Your task to perform on an android device: toggle javascript in the chrome app Image 0: 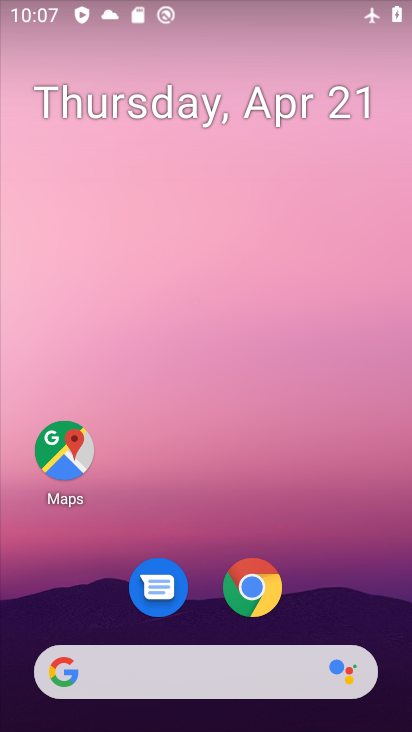
Step 0: drag from (338, 604) to (349, 136)
Your task to perform on an android device: toggle javascript in the chrome app Image 1: 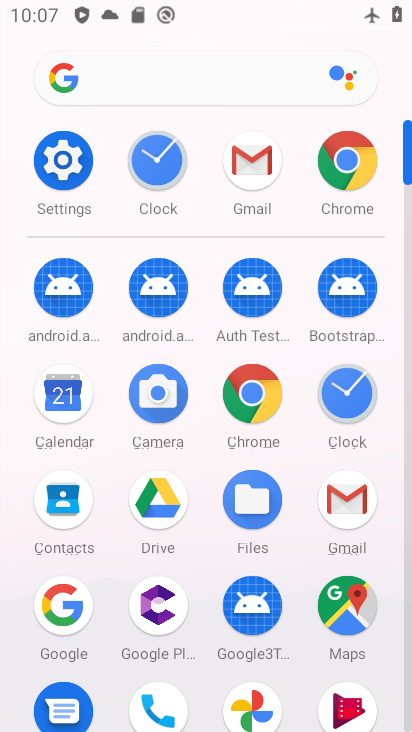
Step 1: click (274, 391)
Your task to perform on an android device: toggle javascript in the chrome app Image 2: 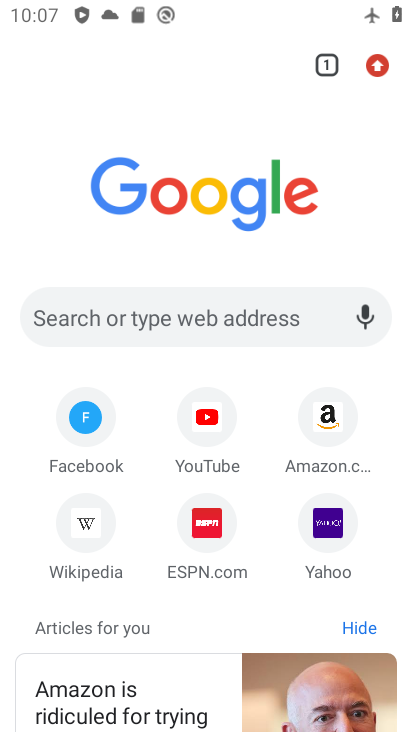
Step 2: click (376, 67)
Your task to perform on an android device: toggle javascript in the chrome app Image 3: 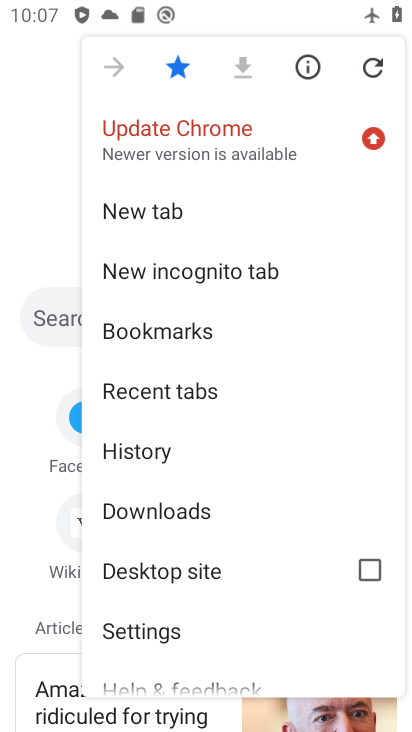
Step 3: click (160, 627)
Your task to perform on an android device: toggle javascript in the chrome app Image 4: 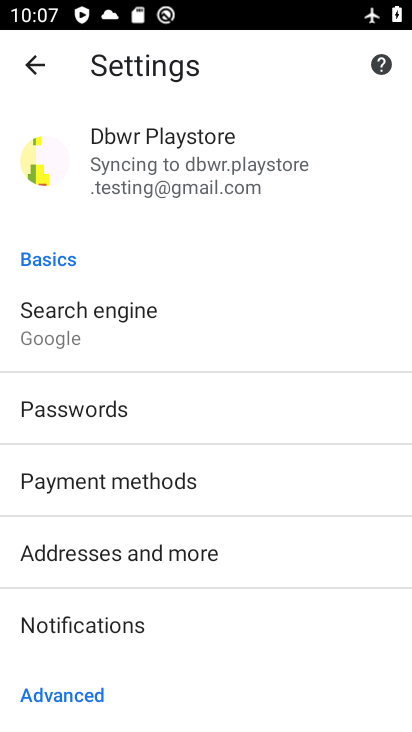
Step 4: drag from (359, 614) to (351, 452)
Your task to perform on an android device: toggle javascript in the chrome app Image 5: 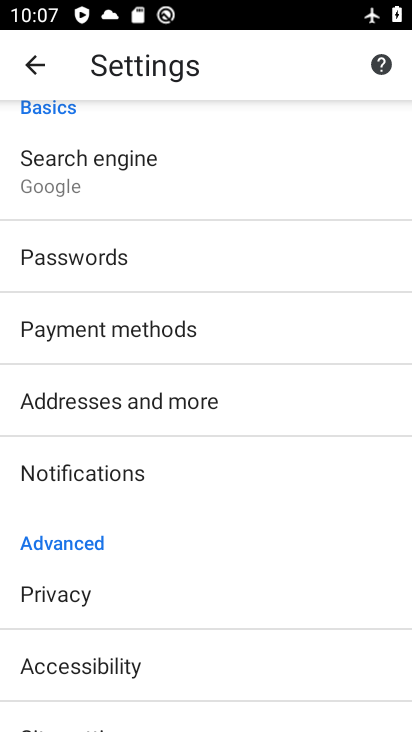
Step 5: drag from (337, 589) to (329, 441)
Your task to perform on an android device: toggle javascript in the chrome app Image 6: 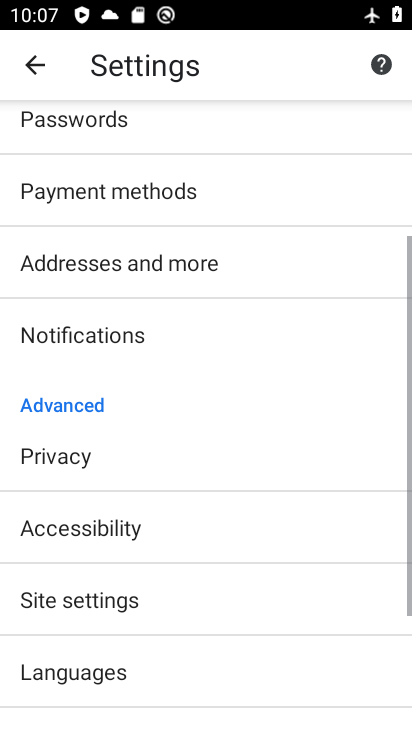
Step 6: drag from (309, 612) to (305, 454)
Your task to perform on an android device: toggle javascript in the chrome app Image 7: 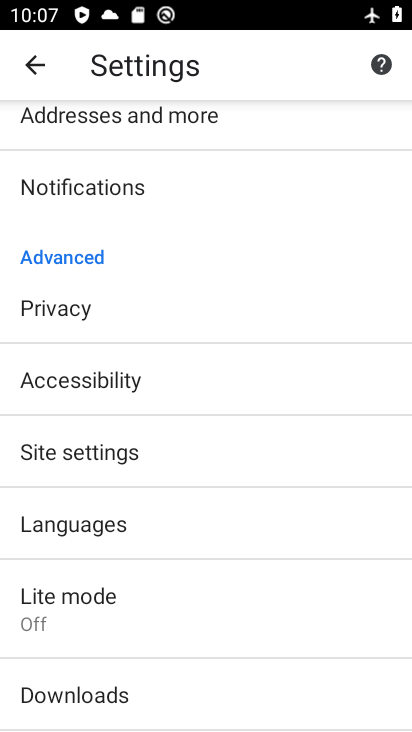
Step 7: drag from (308, 637) to (323, 463)
Your task to perform on an android device: toggle javascript in the chrome app Image 8: 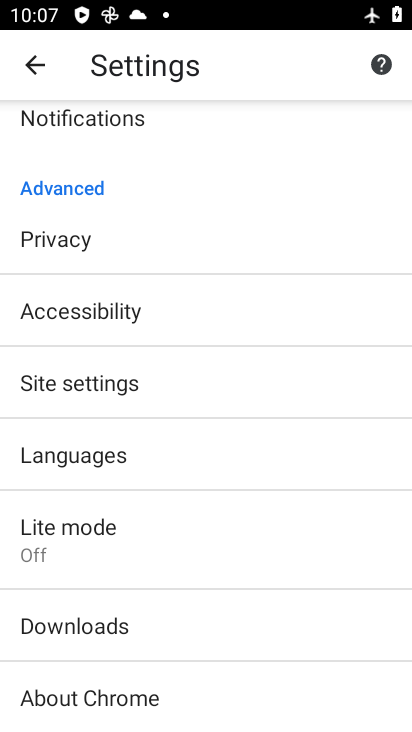
Step 8: click (135, 392)
Your task to perform on an android device: toggle javascript in the chrome app Image 9: 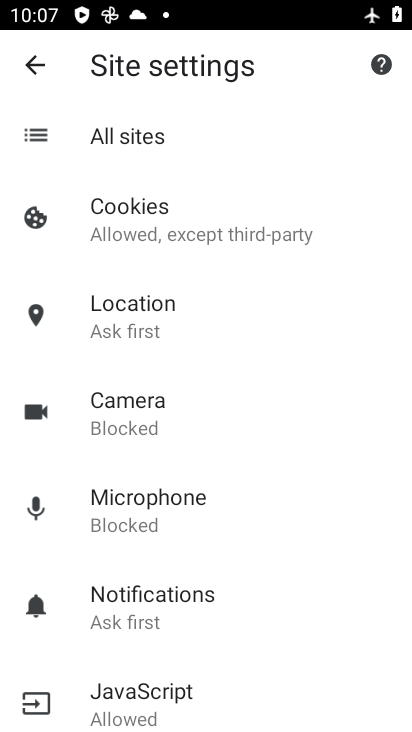
Step 9: drag from (303, 628) to (326, 442)
Your task to perform on an android device: toggle javascript in the chrome app Image 10: 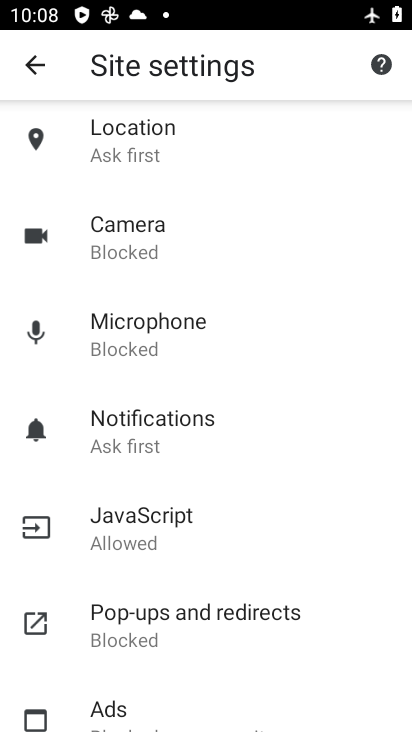
Step 10: drag from (329, 579) to (343, 384)
Your task to perform on an android device: toggle javascript in the chrome app Image 11: 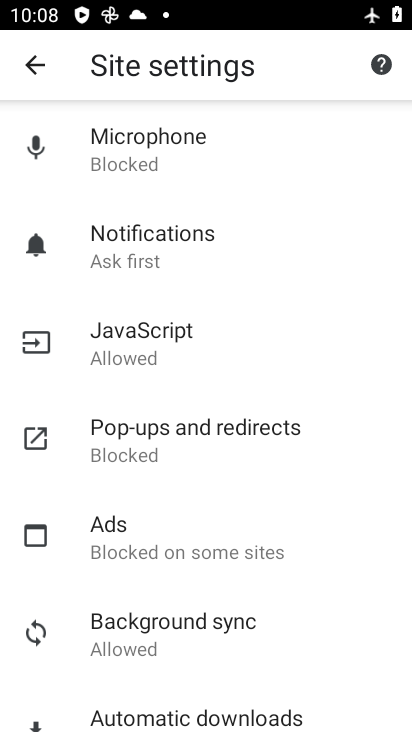
Step 11: drag from (326, 600) to (350, 409)
Your task to perform on an android device: toggle javascript in the chrome app Image 12: 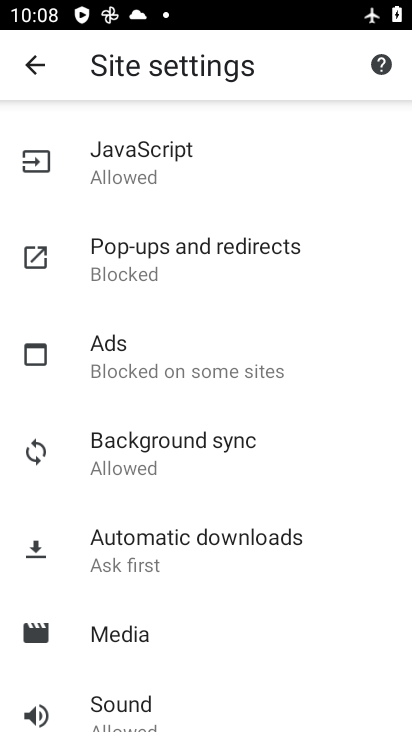
Step 12: drag from (361, 311) to (358, 477)
Your task to perform on an android device: toggle javascript in the chrome app Image 13: 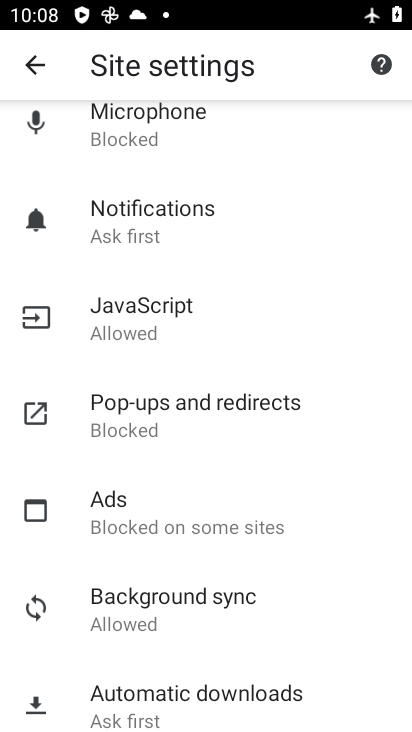
Step 13: click (127, 321)
Your task to perform on an android device: toggle javascript in the chrome app Image 14: 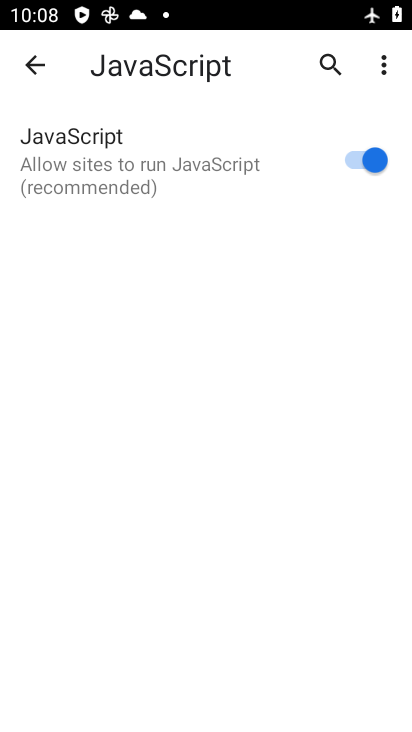
Step 14: click (357, 153)
Your task to perform on an android device: toggle javascript in the chrome app Image 15: 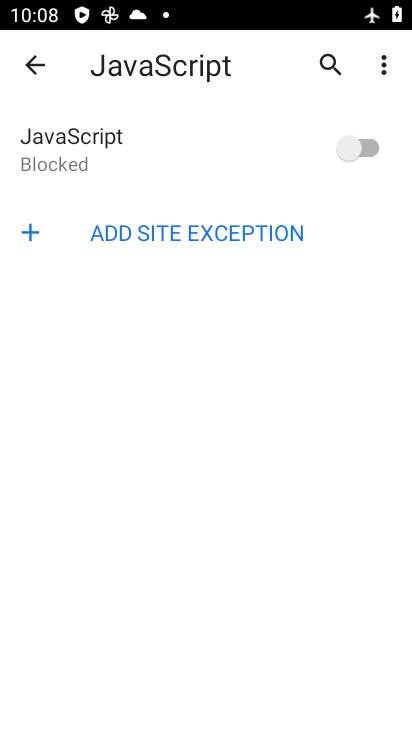
Step 15: task complete